Your task to perform on an android device: Open location settings Image 0: 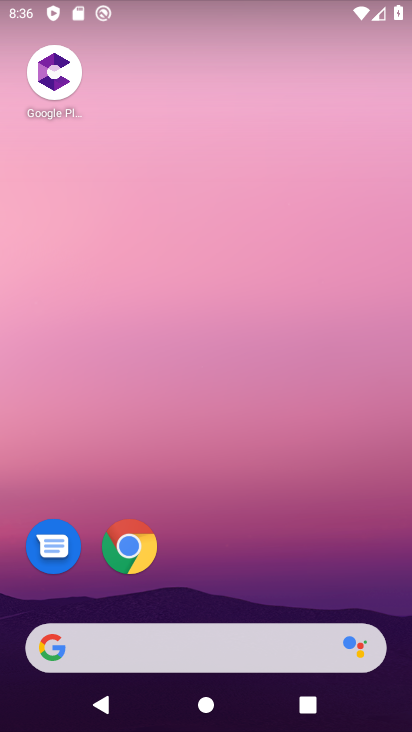
Step 0: drag from (374, 580) to (328, 119)
Your task to perform on an android device: Open location settings Image 1: 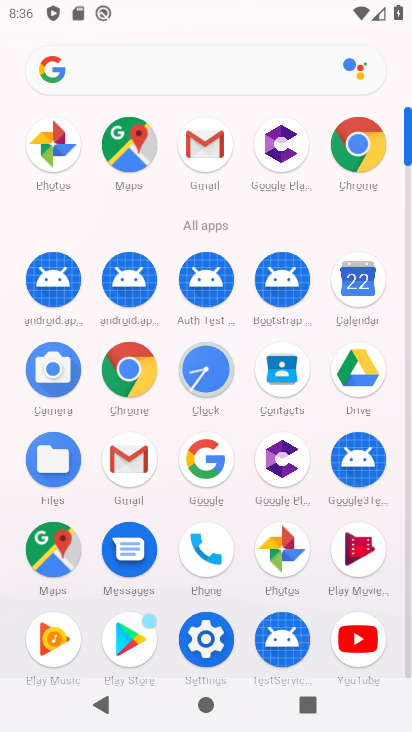
Step 1: click (198, 647)
Your task to perform on an android device: Open location settings Image 2: 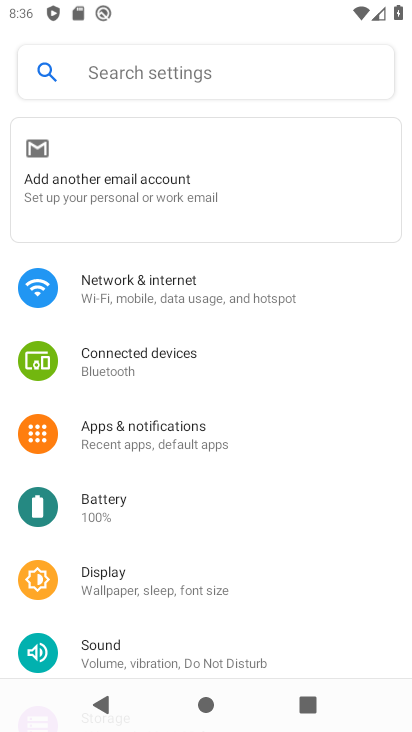
Step 2: drag from (336, 562) to (327, 453)
Your task to perform on an android device: Open location settings Image 3: 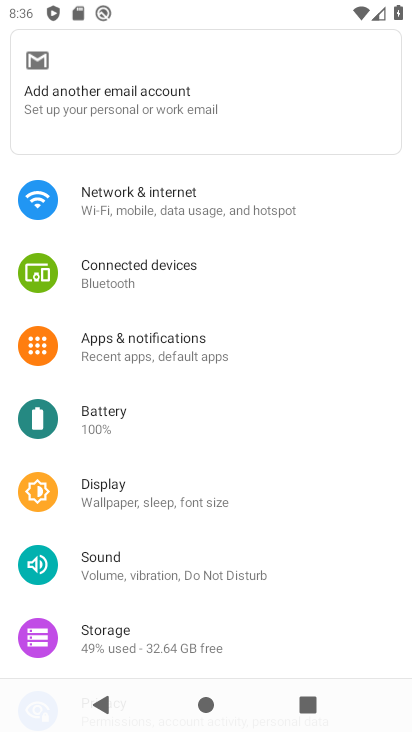
Step 3: drag from (351, 571) to (335, 441)
Your task to perform on an android device: Open location settings Image 4: 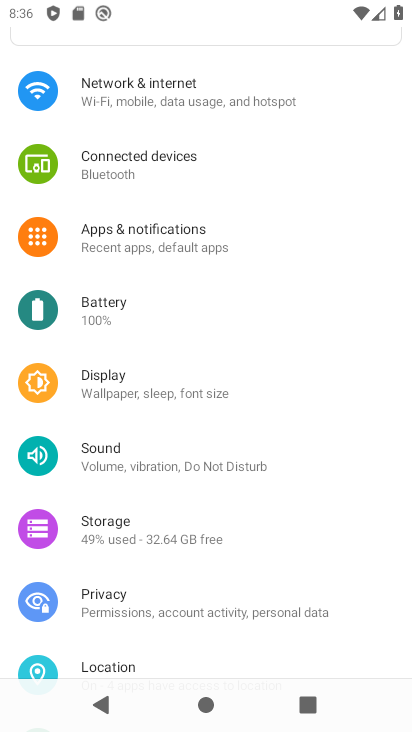
Step 4: drag from (368, 606) to (360, 525)
Your task to perform on an android device: Open location settings Image 5: 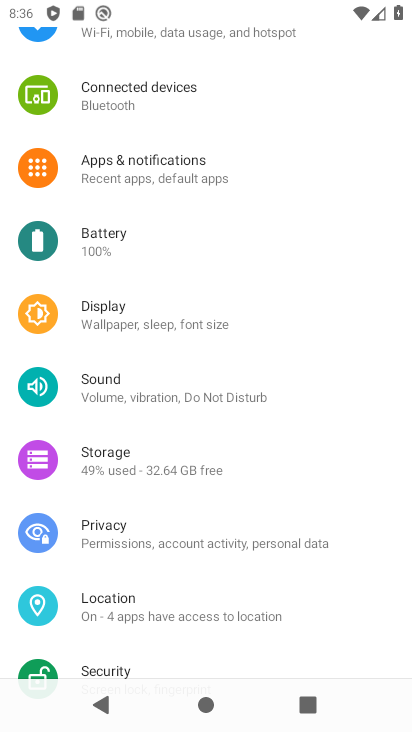
Step 5: drag from (375, 609) to (366, 522)
Your task to perform on an android device: Open location settings Image 6: 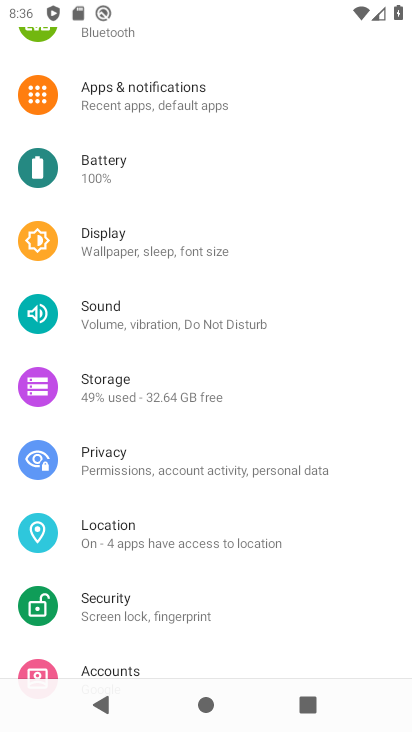
Step 6: drag from (364, 605) to (347, 515)
Your task to perform on an android device: Open location settings Image 7: 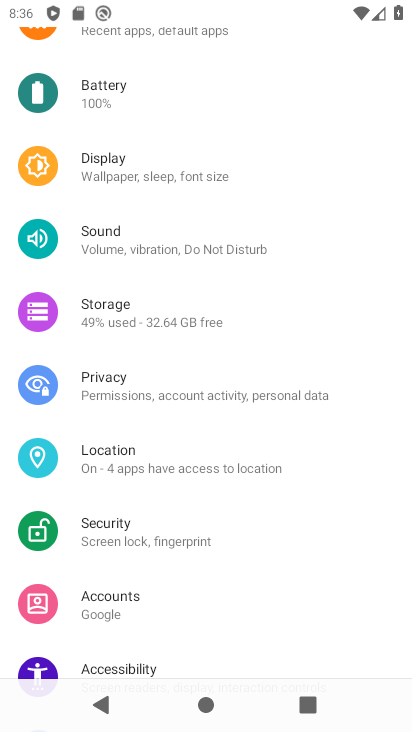
Step 7: drag from (371, 595) to (348, 478)
Your task to perform on an android device: Open location settings Image 8: 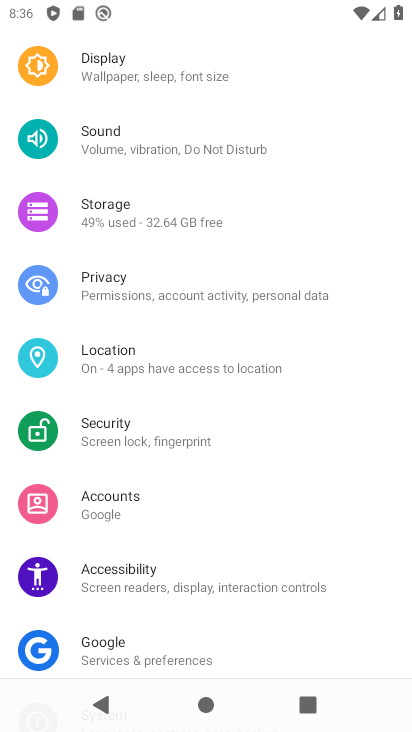
Step 8: drag from (365, 606) to (346, 519)
Your task to perform on an android device: Open location settings Image 9: 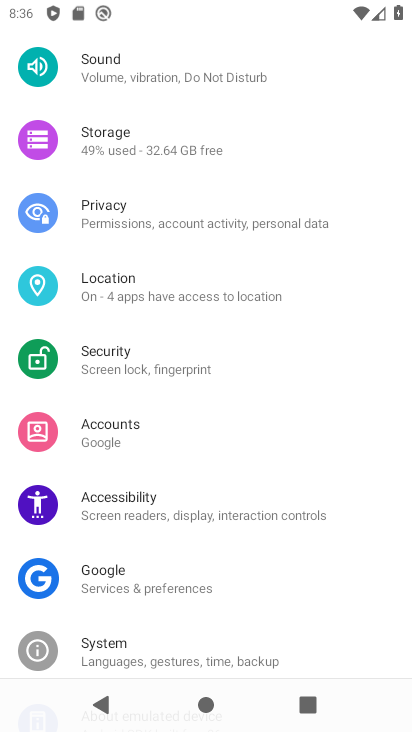
Step 9: drag from (344, 609) to (335, 485)
Your task to perform on an android device: Open location settings Image 10: 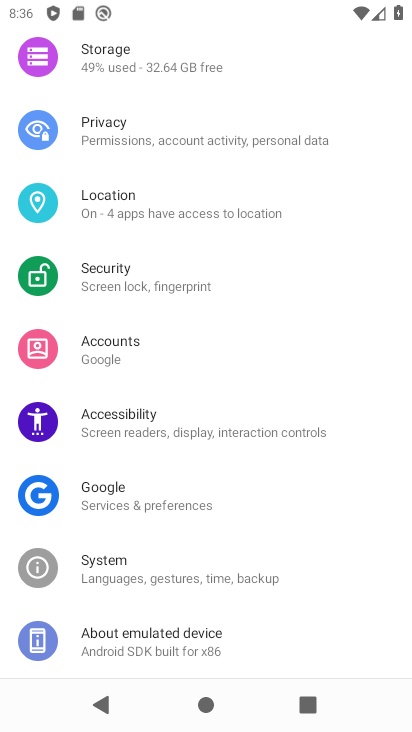
Step 10: drag from (348, 375) to (361, 488)
Your task to perform on an android device: Open location settings Image 11: 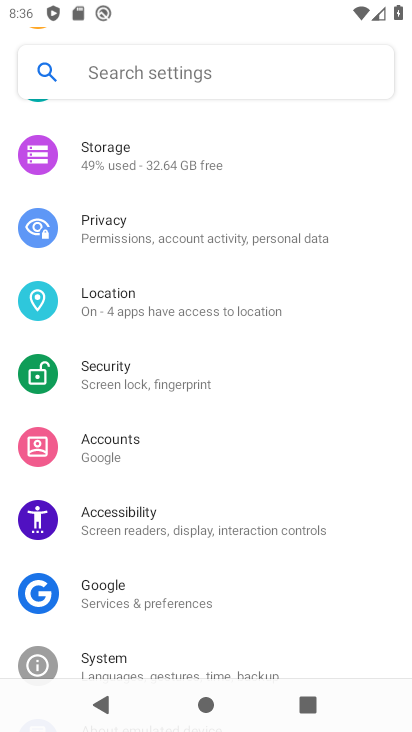
Step 11: drag from (340, 408) to (356, 507)
Your task to perform on an android device: Open location settings Image 12: 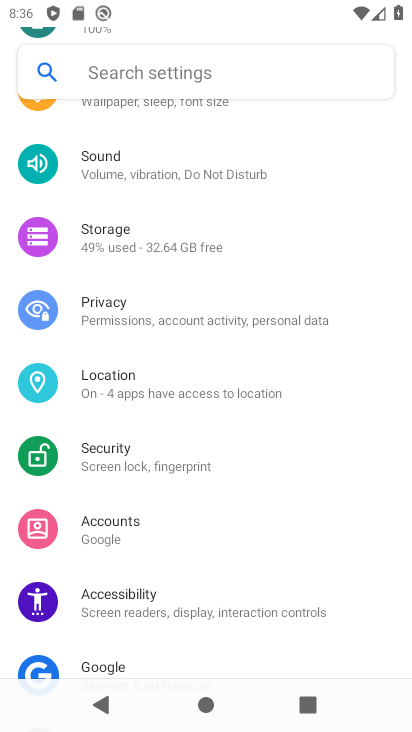
Step 12: drag from (356, 402) to (357, 484)
Your task to perform on an android device: Open location settings Image 13: 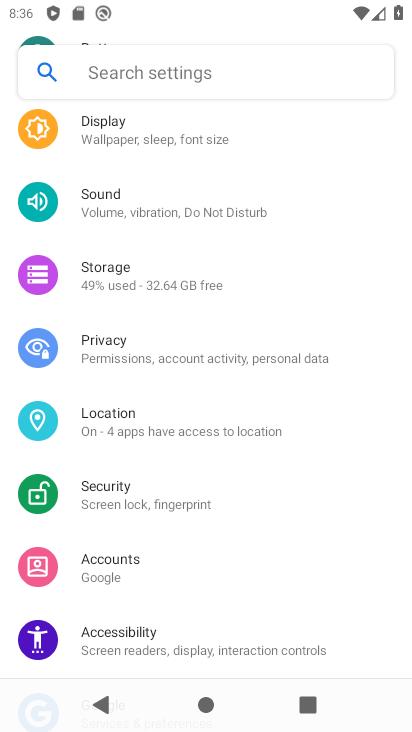
Step 13: click (279, 437)
Your task to perform on an android device: Open location settings Image 14: 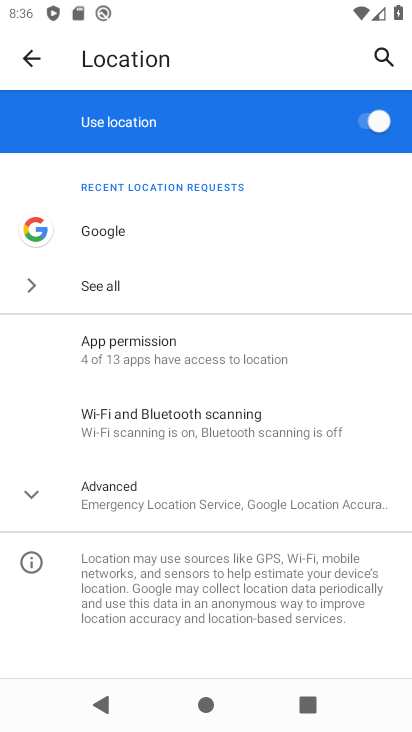
Step 14: task complete